Your task to perform on an android device: Check the news Image 0: 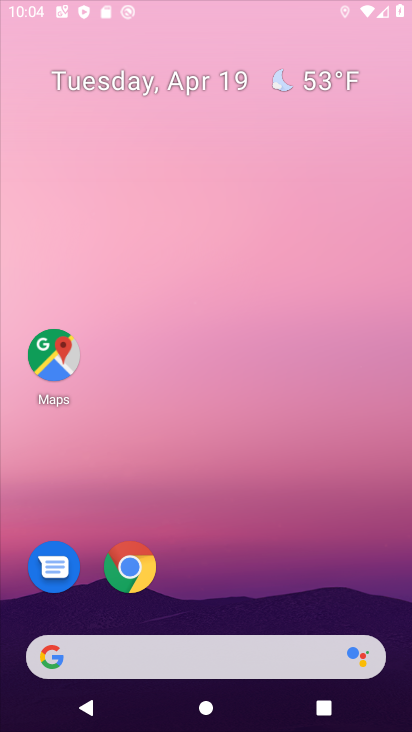
Step 0: click (313, 222)
Your task to perform on an android device: Check the news Image 1: 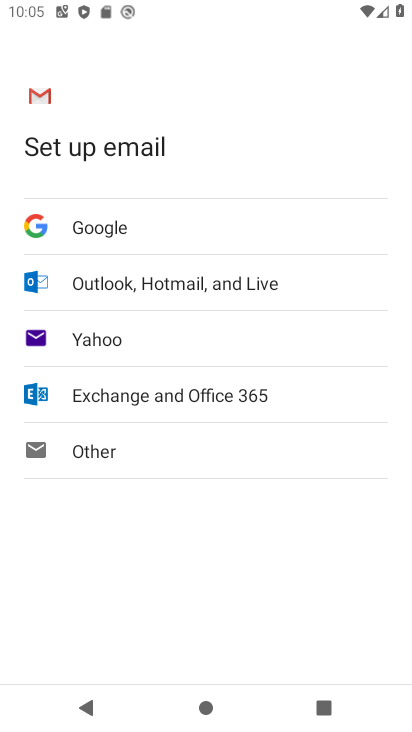
Step 1: press back button
Your task to perform on an android device: Check the news Image 2: 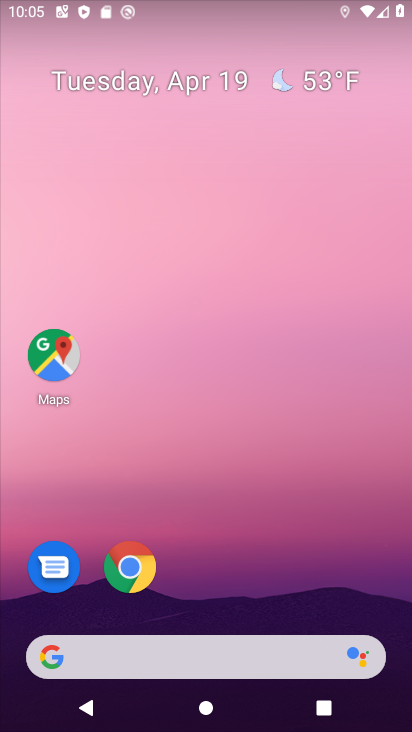
Step 2: click (138, 574)
Your task to perform on an android device: Check the news Image 3: 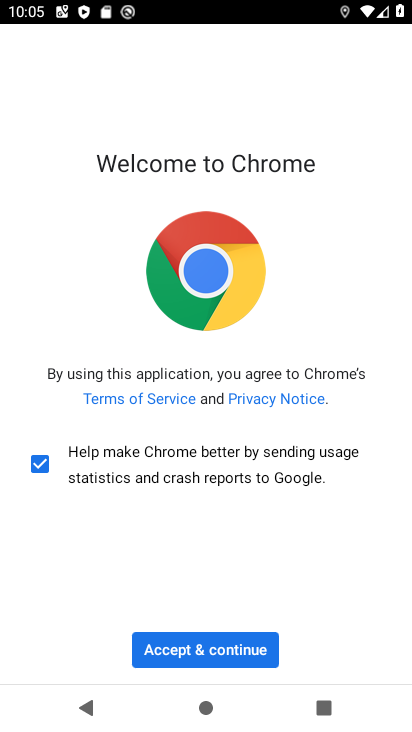
Step 3: click (236, 641)
Your task to perform on an android device: Check the news Image 4: 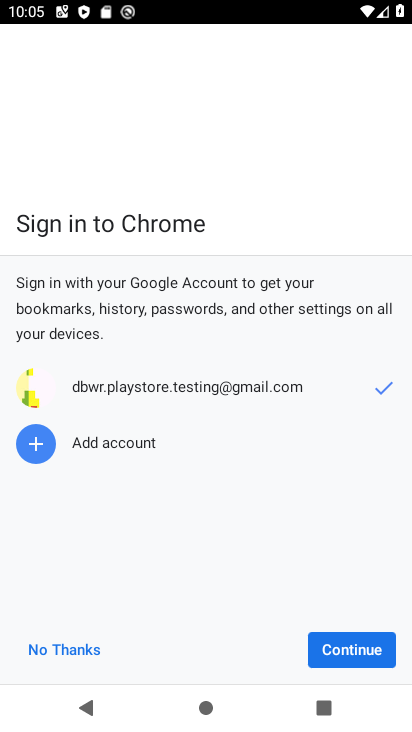
Step 4: click (332, 655)
Your task to perform on an android device: Check the news Image 5: 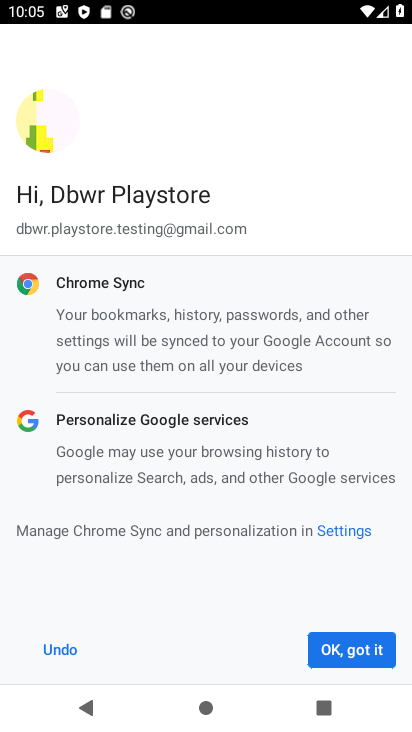
Step 5: click (332, 655)
Your task to perform on an android device: Check the news Image 6: 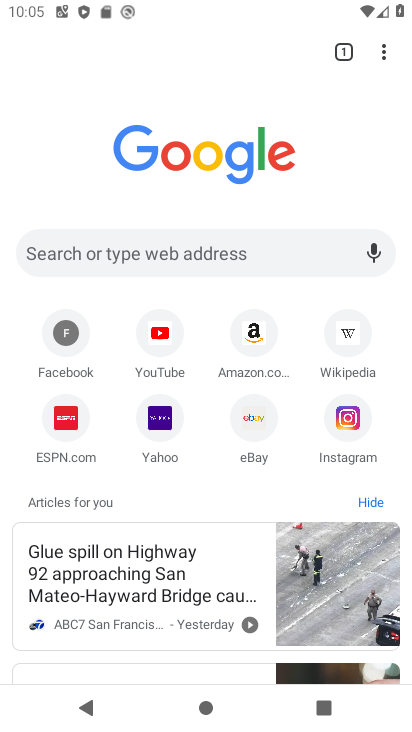
Step 6: click (307, 253)
Your task to perform on an android device: Check the news Image 7: 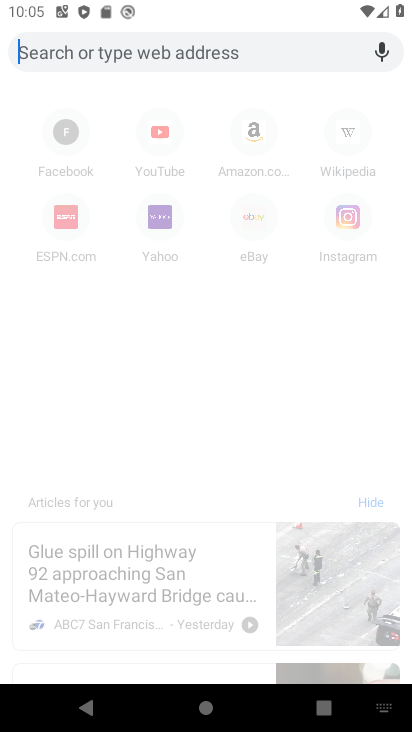
Step 7: type "news"
Your task to perform on an android device: Check the news Image 8: 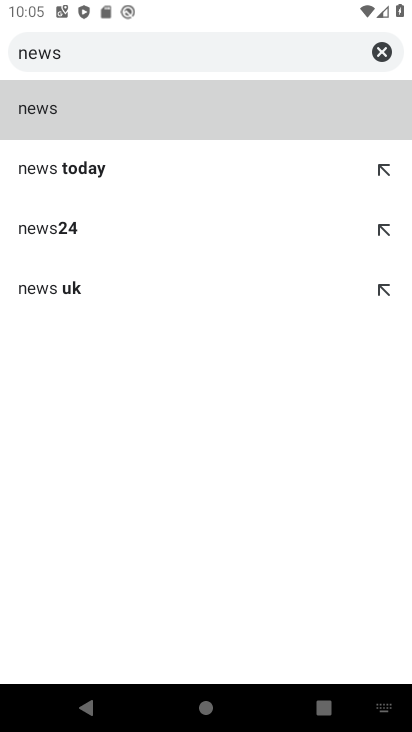
Step 8: click (338, 125)
Your task to perform on an android device: Check the news Image 9: 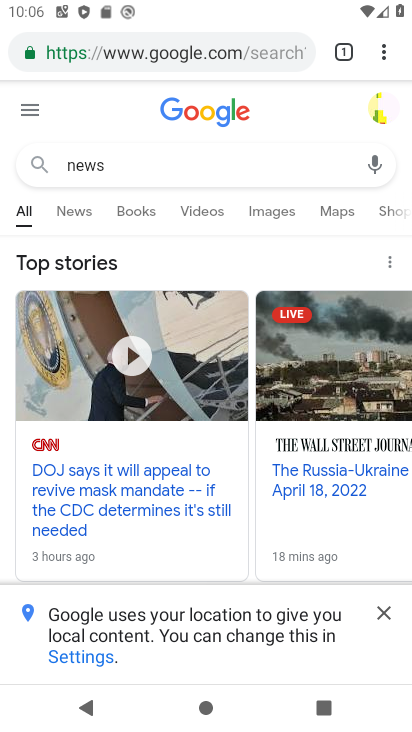
Step 9: task complete